Your task to perform on an android device: Go to Google maps Image 0: 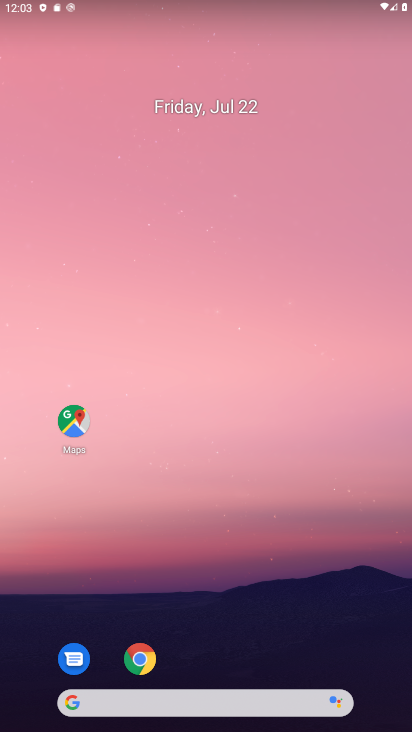
Step 0: click (60, 426)
Your task to perform on an android device: Go to Google maps Image 1: 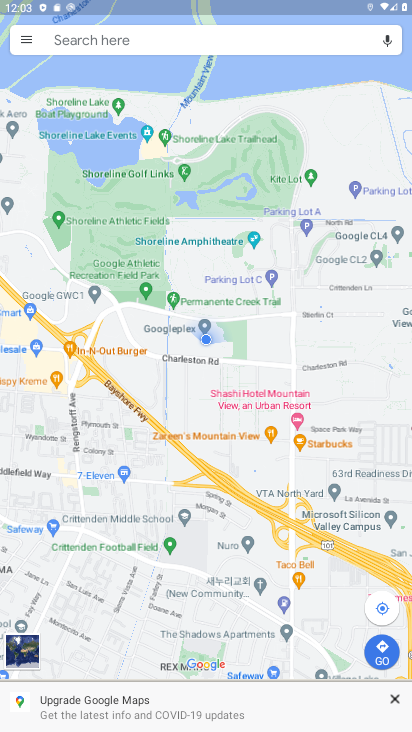
Step 1: task complete